Your task to perform on an android device: stop showing notifications on the lock screen Image 0: 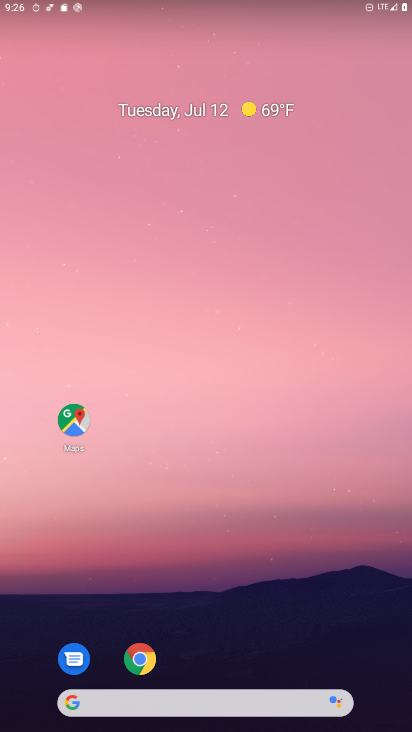
Step 0: drag from (212, 721) to (195, 108)
Your task to perform on an android device: stop showing notifications on the lock screen Image 1: 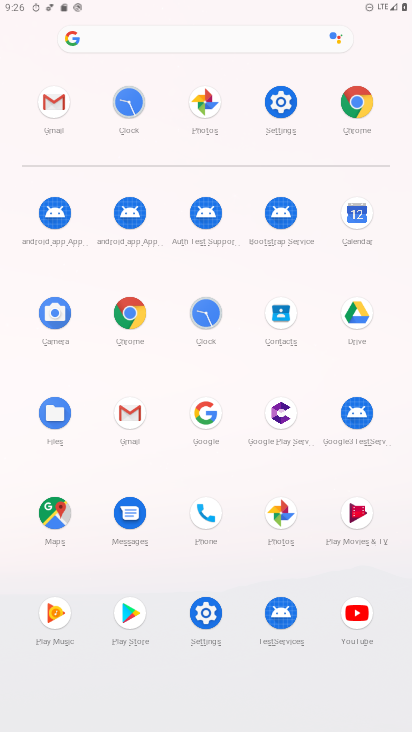
Step 1: click (285, 101)
Your task to perform on an android device: stop showing notifications on the lock screen Image 2: 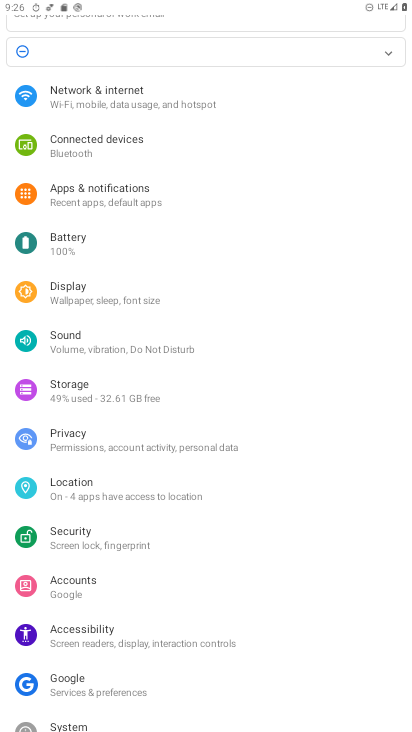
Step 2: click (86, 193)
Your task to perform on an android device: stop showing notifications on the lock screen Image 3: 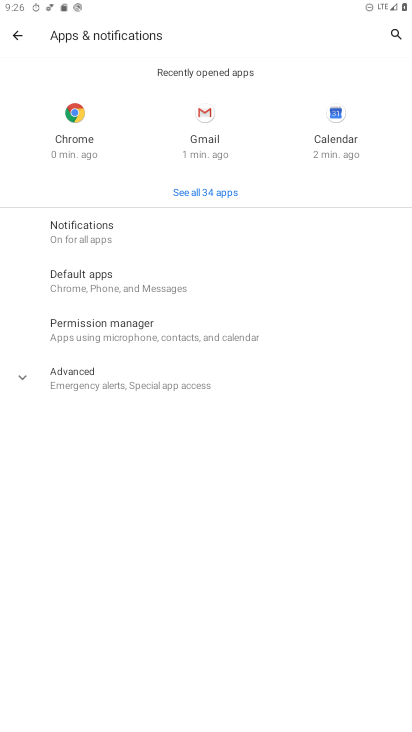
Step 3: click (74, 228)
Your task to perform on an android device: stop showing notifications on the lock screen Image 4: 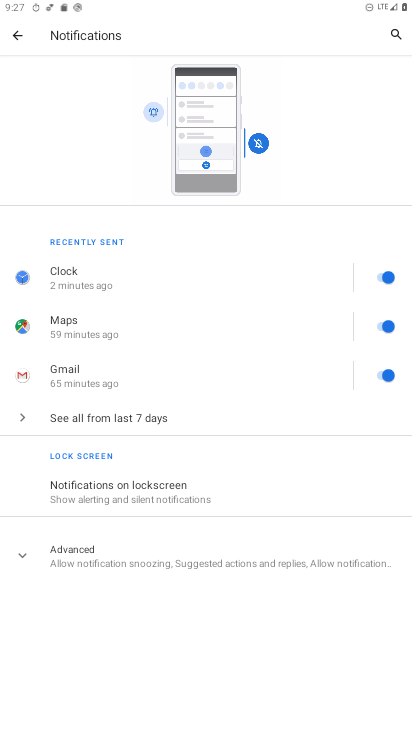
Step 4: click (135, 490)
Your task to perform on an android device: stop showing notifications on the lock screen Image 5: 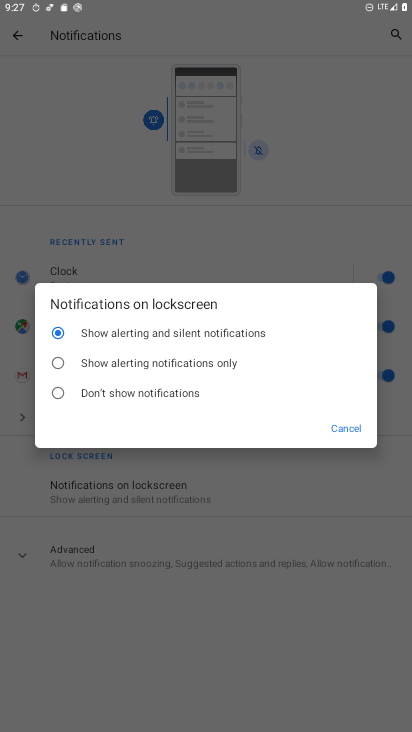
Step 5: click (57, 393)
Your task to perform on an android device: stop showing notifications on the lock screen Image 6: 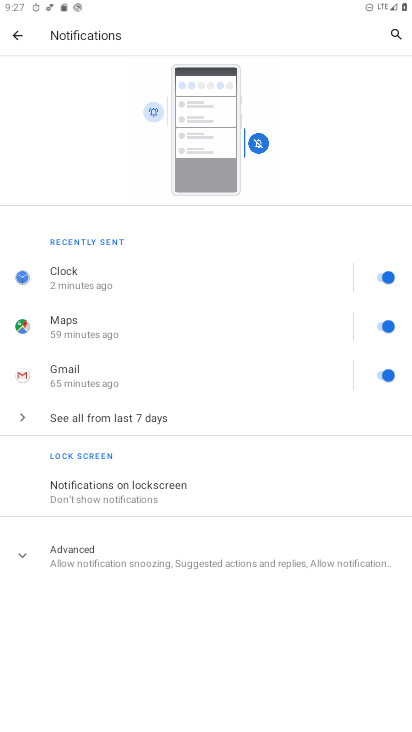
Step 6: task complete